Your task to perform on an android device: check android version Image 0: 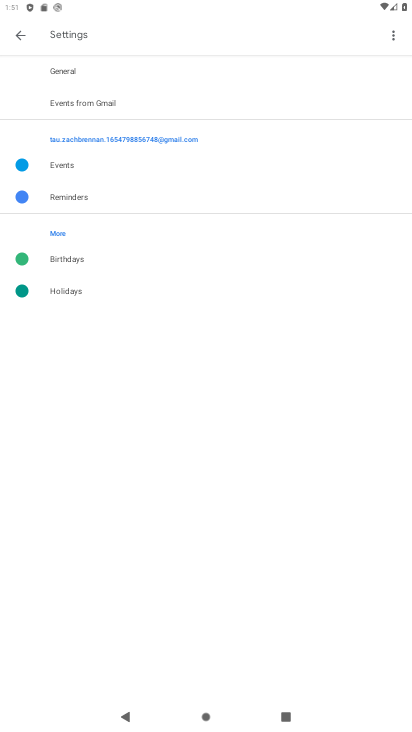
Step 0: press home button
Your task to perform on an android device: check android version Image 1: 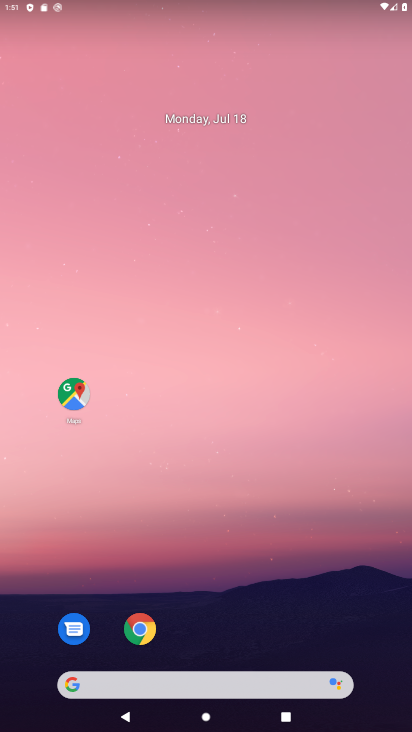
Step 1: drag from (187, 637) to (220, 182)
Your task to perform on an android device: check android version Image 2: 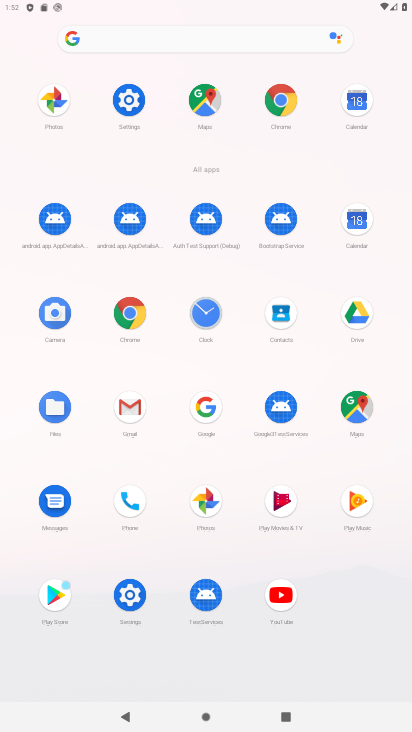
Step 2: click (126, 87)
Your task to perform on an android device: check android version Image 3: 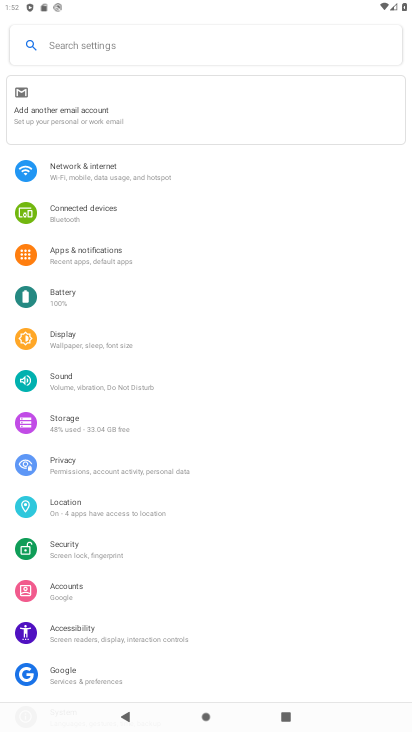
Step 3: drag from (126, 634) to (195, 210)
Your task to perform on an android device: check android version Image 4: 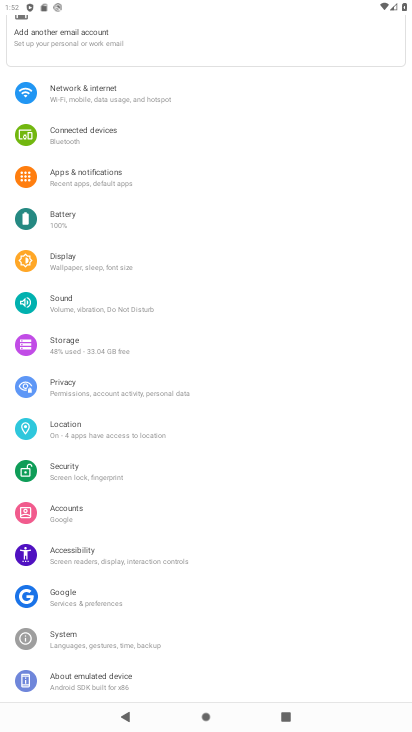
Step 4: click (82, 677)
Your task to perform on an android device: check android version Image 5: 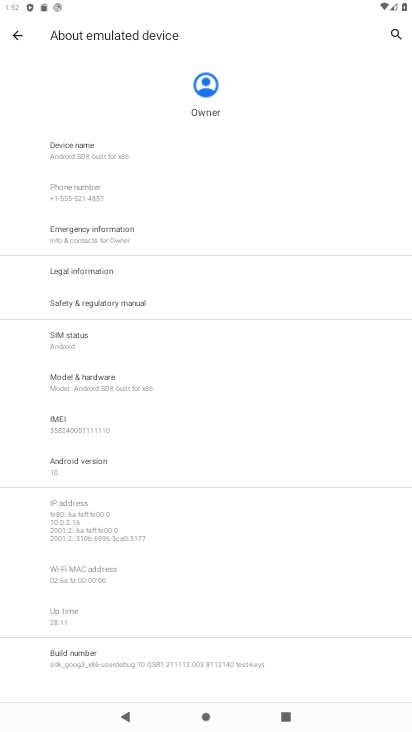
Step 5: click (94, 480)
Your task to perform on an android device: check android version Image 6: 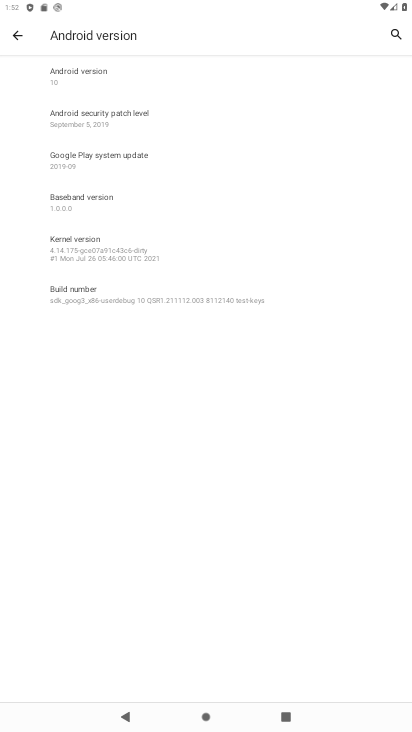
Step 6: click (79, 87)
Your task to perform on an android device: check android version Image 7: 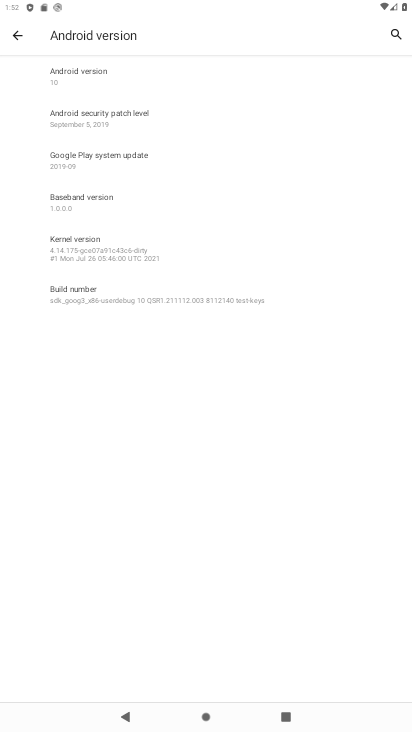
Step 7: task complete